Your task to perform on an android device: Go to Yahoo.com Image 0: 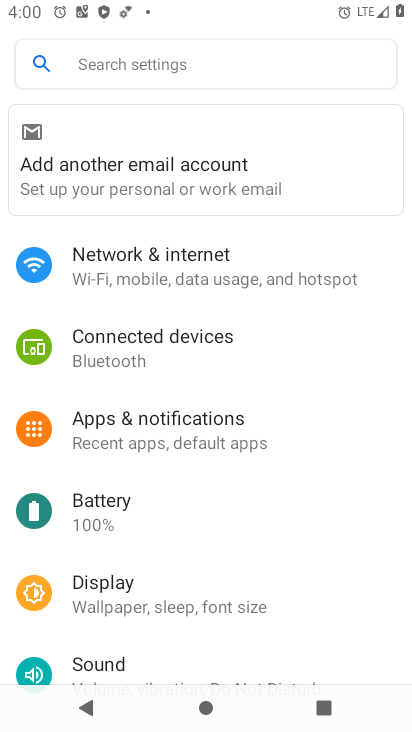
Step 0: press home button
Your task to perform on an android device: Go to Yahoo.com Image 1: 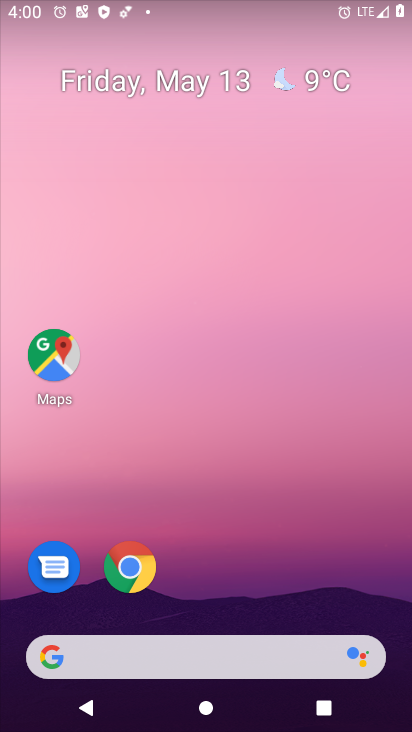
Step 1: click (134, 574)
Your task to perform on an android device: Go to Yahoo.com Image 2: 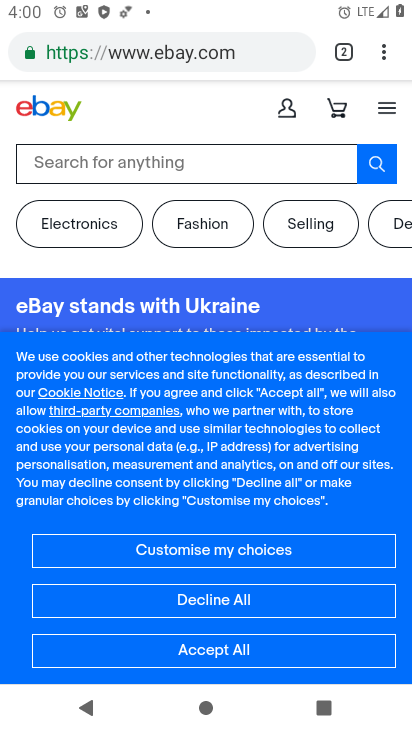
Step 2: click (136, 57)
Your task to perform on an android device: Go to Yahoo.com Image 3: 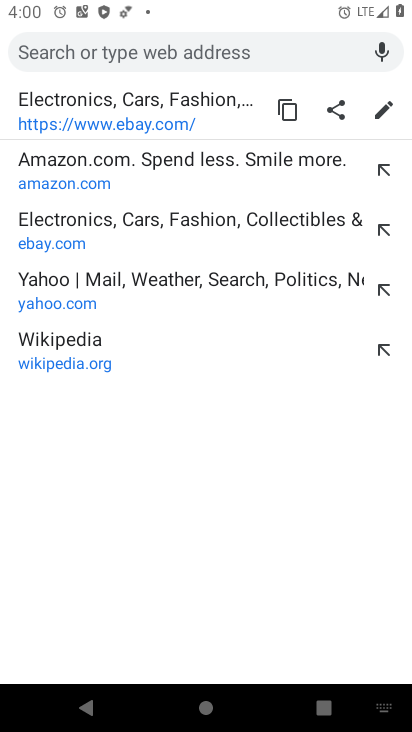
Step 3: click (73, 283)
Your task to perform on an android device: Go to Yahoo.com Image 4: 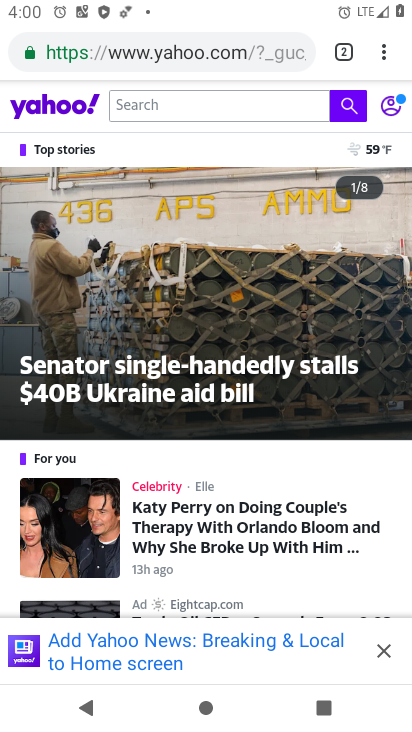
Step 4: task complete